Your task to perform on an android device: Is it going to rain tomorrow? Image 0: 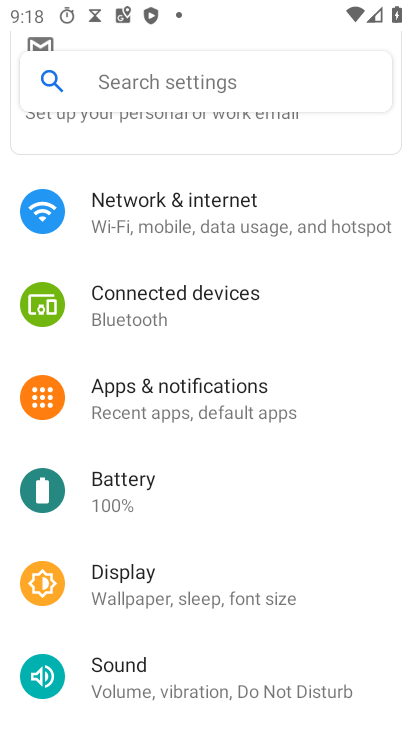
Step 0: press home button
Your task to perform on an android device: Is it going to rain tomorrow? Image 1: 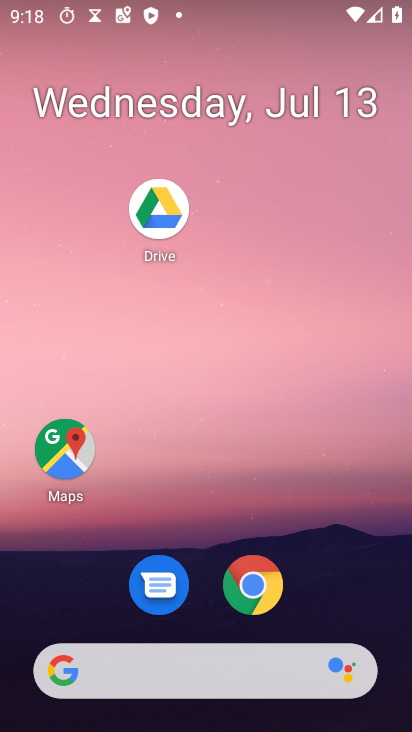
Step 1: click (195, 681)
Your task to perform on an android device: Is it going to rain tomorrow? Image 2: 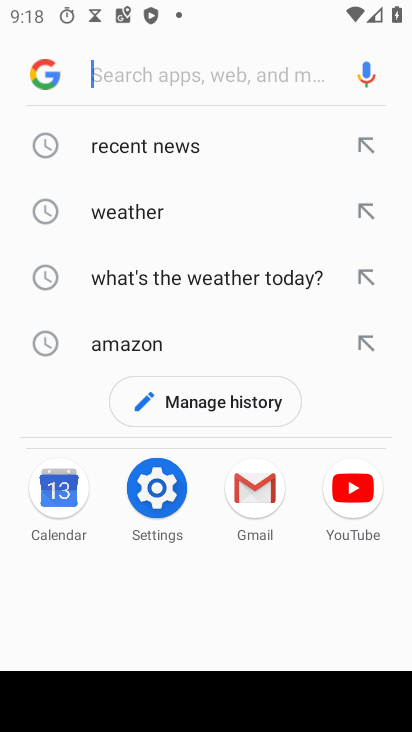
Step 2: type "Is it going to rain tomorrow"
Your task to perform on an android device: Is it going to rain tomorrow? Image 3: 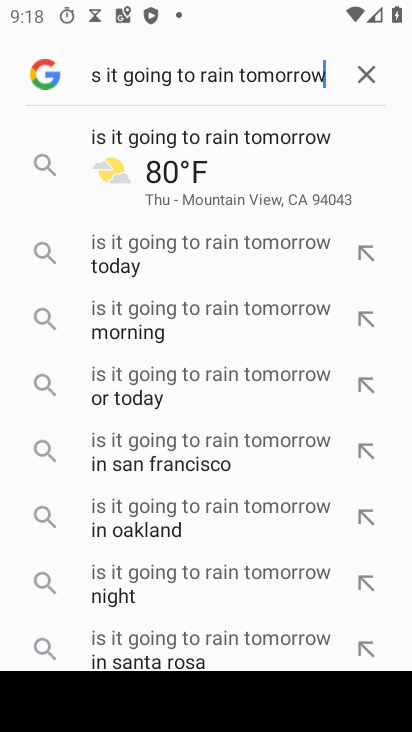
Step 3: click (238, 166)
Your task to perform on an android device: Is it going to rain tomorrow? Image 4: 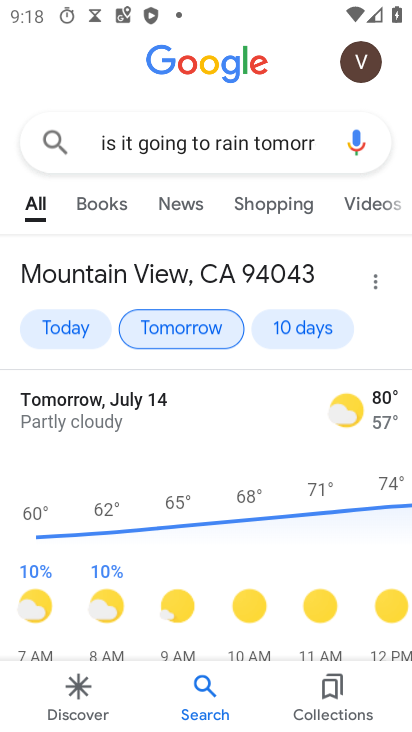
Step 4: task complete